Your task to perform on an android device: turn on airplane mode Image 0: 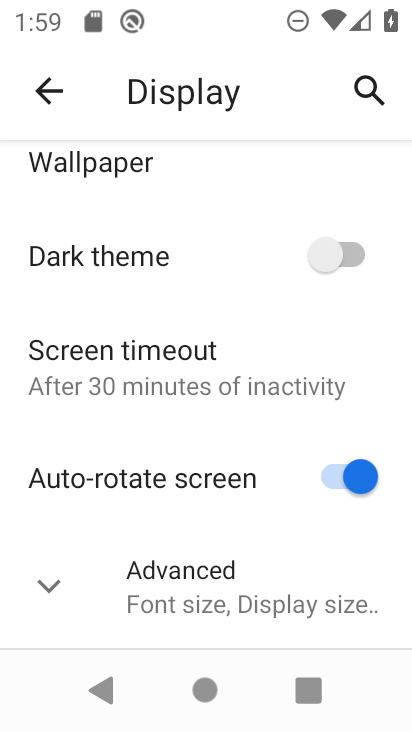
Step 0: drag from (210, 185) to (235, 647)
Your task to perform on an android device: turn on airplane mode Image 1: 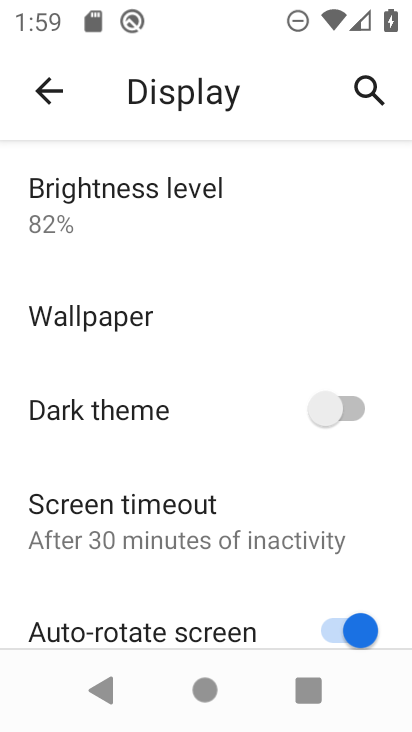
Step 1: click (47, 91)
Your task to perform on an android device: turn on airplane mode Image 2: 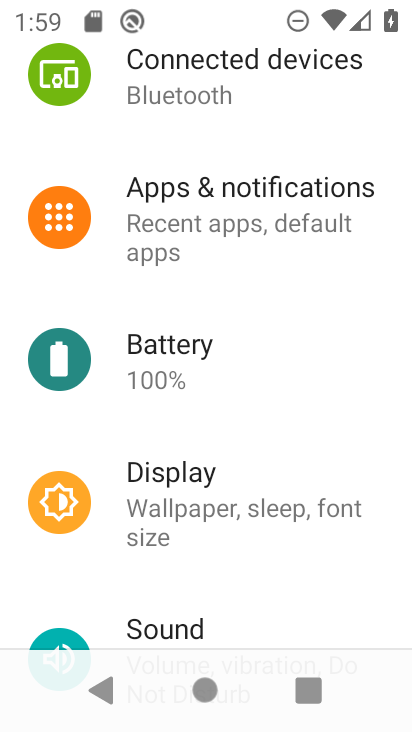
Step 2: drag from (217, 191) to (257, 592)
Your task to perform on an android device: turn on airplane mode Image 3: 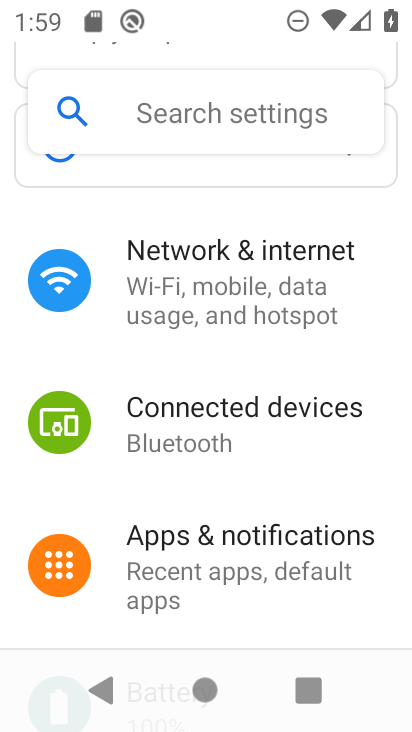
Step 3: drag from (232, 257) to (246, 566)
Your task to perform on an android device: turn on airplane mode Image 4: 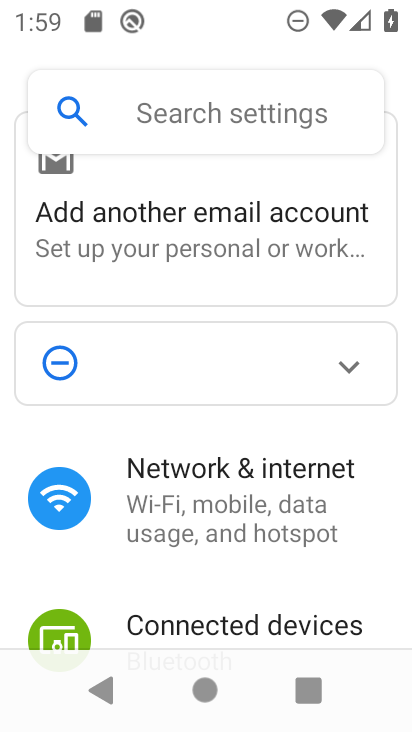
Step 4: click (232, 491)
Your task to perform on an android device: turn on airplane mode Image 5: 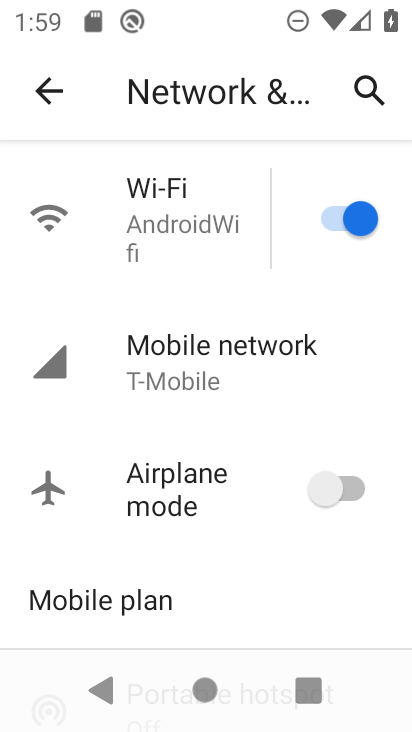
Step 5: click (355, 490)
Your task to perform on an android device: turn on airplane mode Image 6: 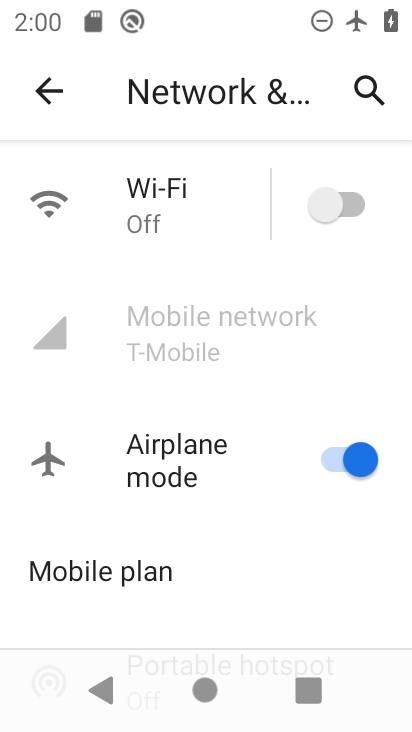
Step 6: task complete